Your task to perform on an android device: Search for Mexican restaurants on Maps Image 0: 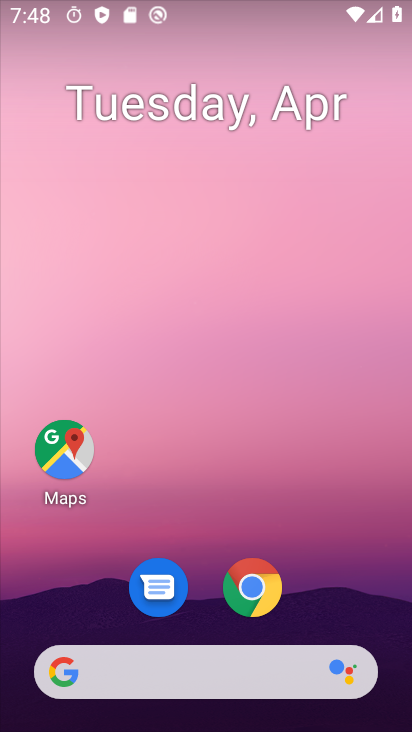
Step 0: click (67, 444)
Your task to perform on an android device: Search for Mexican restaurants on Maps Image 1: 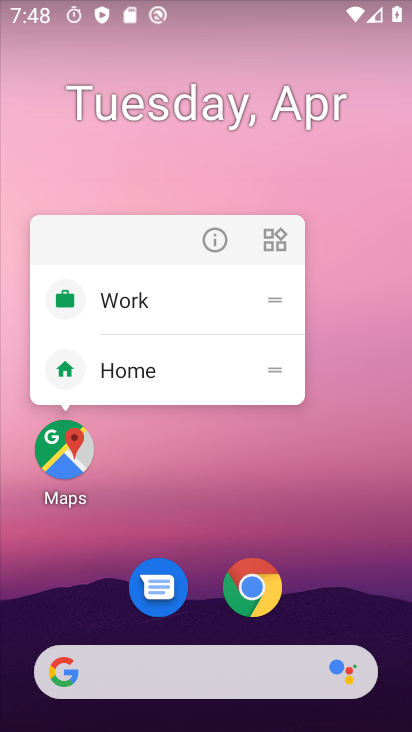
Step 1: click (67, 444)
Your task to perform on an android device: Search for Mexican restaurants on Maps Image 2: 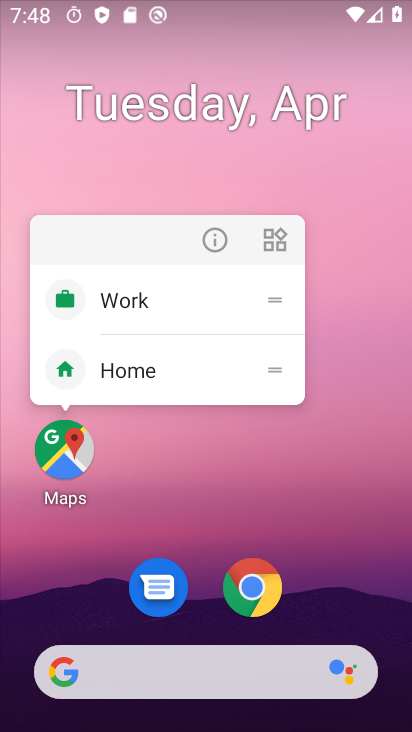
Step 2: click (72, 456)
Your task to perform on an android device: Search for Mexican restaurants on Maps Image 3: 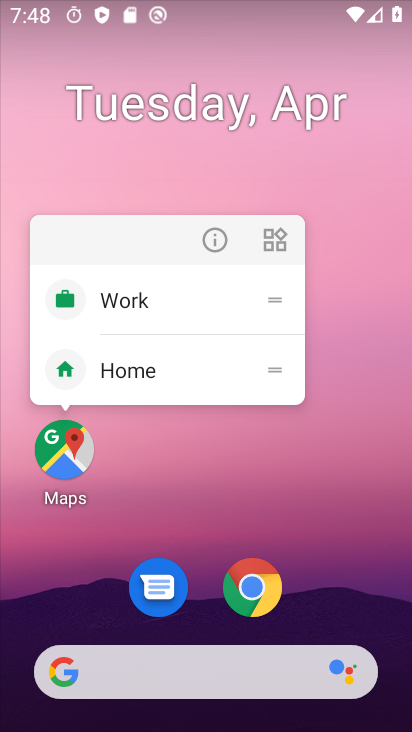
Step 3: click (72, 458)
Your task to perform on an android device: Search for Mexican restaurants on Maps Image 4: 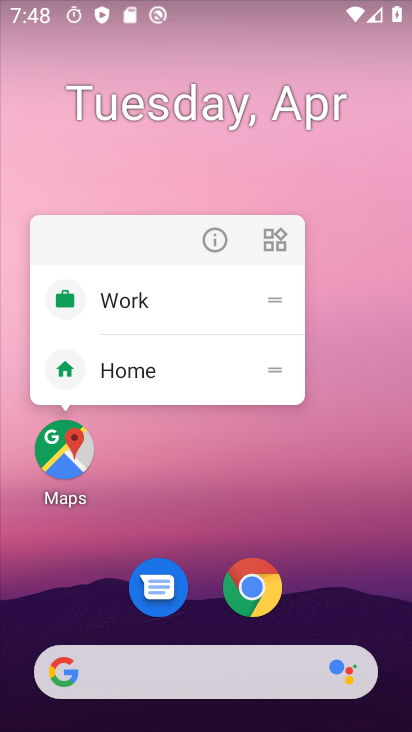
Step 4: click (58, 465)
Your task to perform on an android device: Search for Mexican restaurants on Maps Image 5: 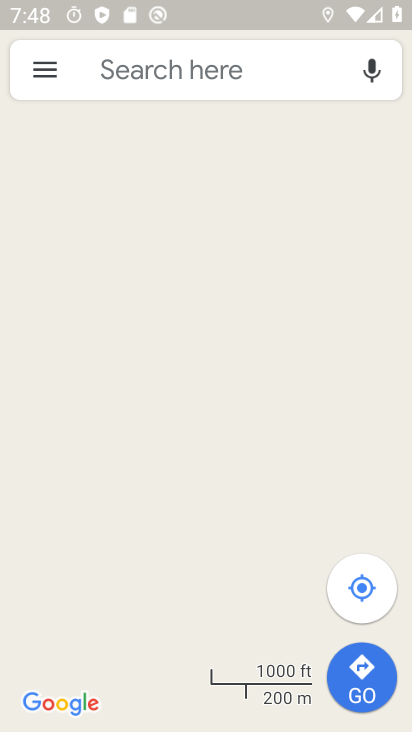
Step 5: click (223, 56)
Your task to perform on an android device: Search for Mexican restaurants on Maps Image 6: 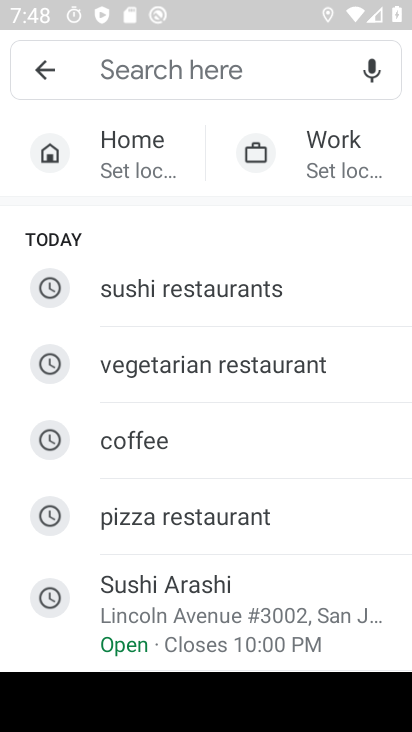
Step 6: type "mexican restaurants"
Your task to perform on an android device: Search for Mexican restaurants on Maps Image 7: 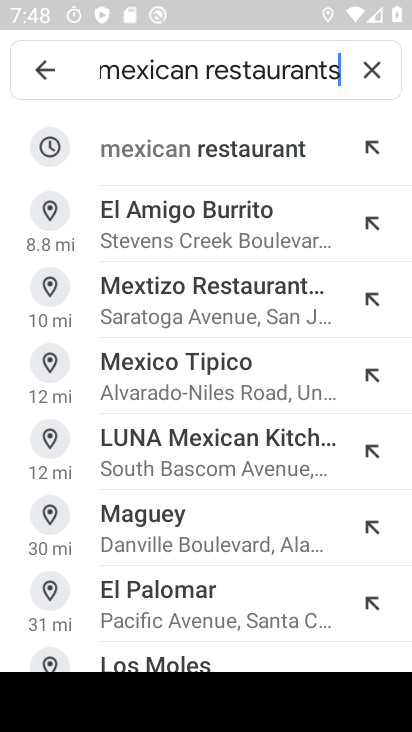
Step 7: task complete